Your task to perform on an android device: delete a single message in the gmail app Image 0: 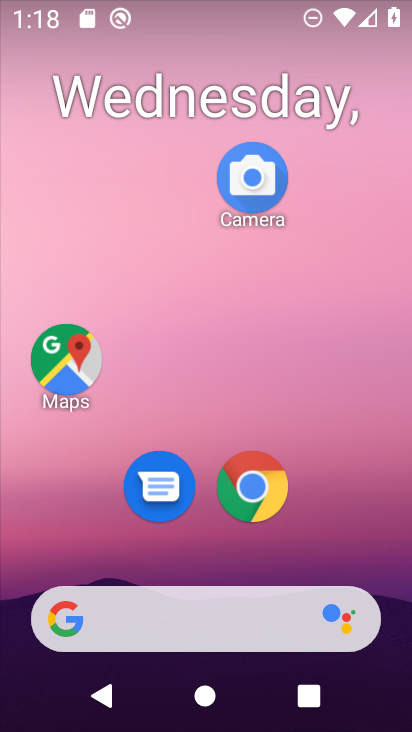
Step 0: drag from (340, 670) to (246, 181)
Your task to perform on an android device: delete a single message in the gmail app Image 1: 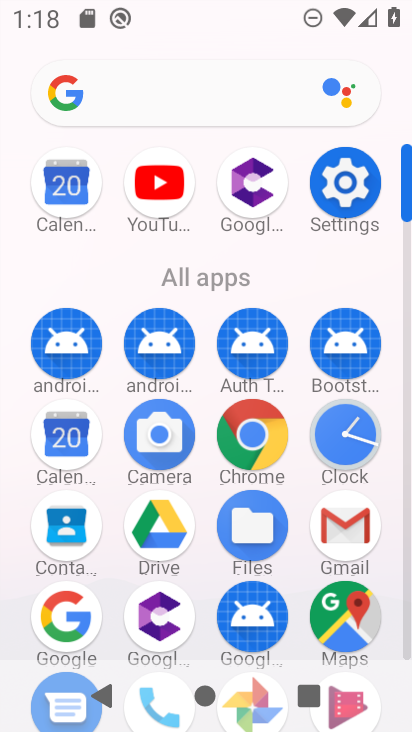
Step 1: click (347, 516)
Your task to perform on an android device: delete a single message in the gmail app Image 2: 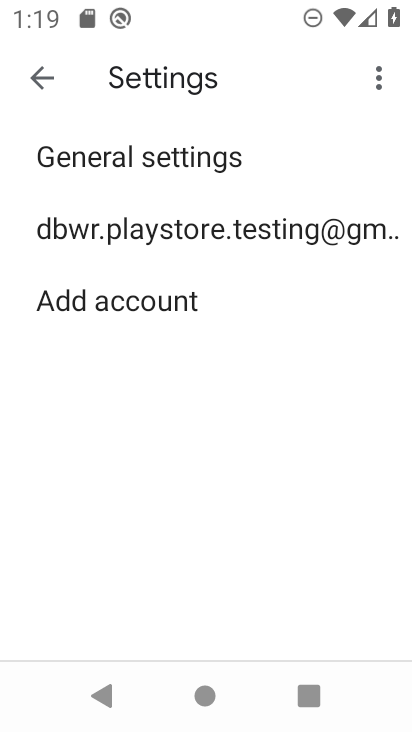
Step 2: click (35, 87)
Your task to perform on an android device: delete a single message in the gmail app Image 3: 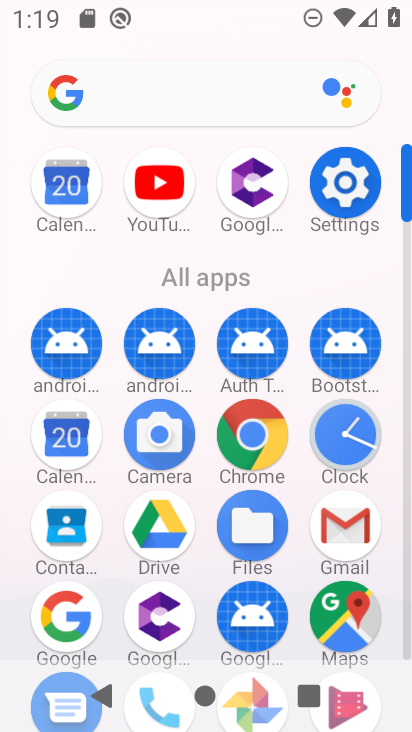
Step 3: click (342, 520)
Your task to perform on an android device: delete a single message in the gmail app Image 4: 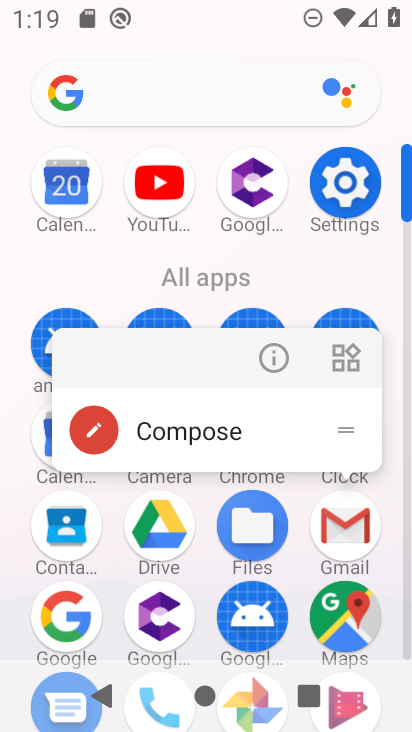
Step 4: click (337, 539)
Your task to perform on an android device: delete a single message in the gmail app Image 5: 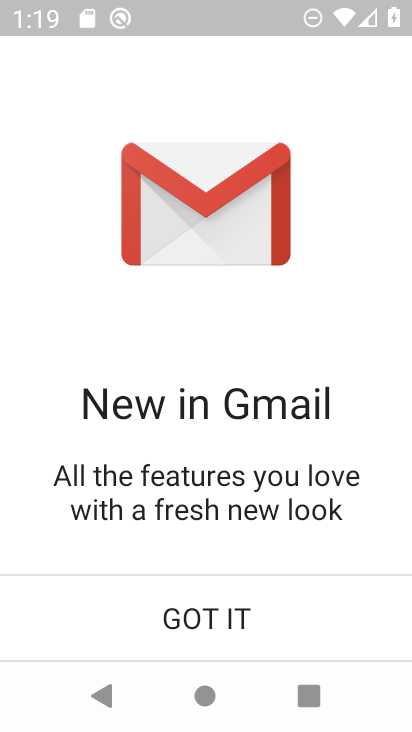
Step 5: click (182, 620)
Your task to perform on an android device: delete a single message in the gmail app Image 6: 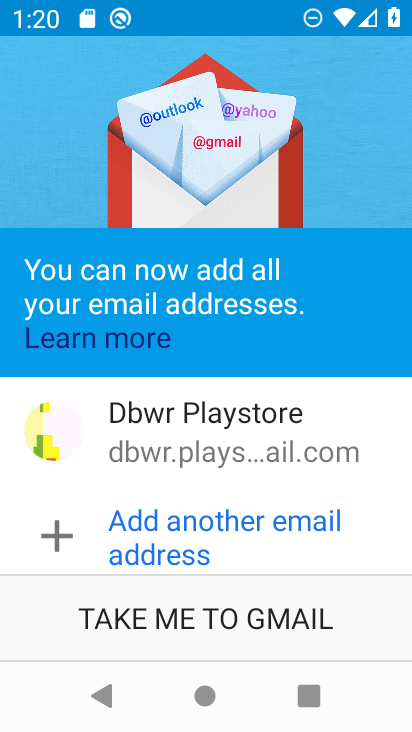
Step 6: click (208, 618)
Your task to perform on an android device: delete a single message in the gmail app Image 7: 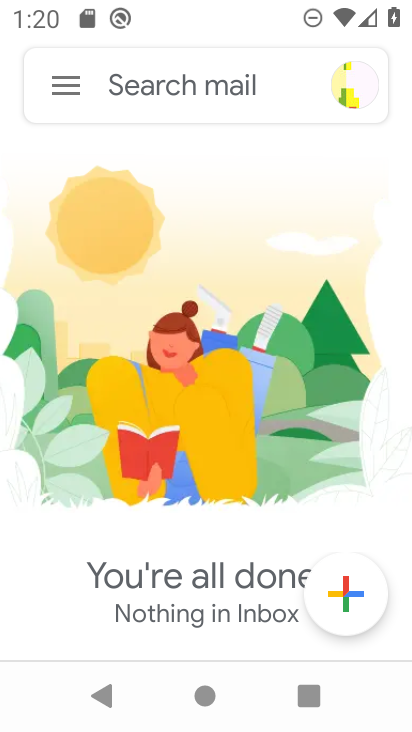
Step 7: click (48, 66)
Your task to perform on an android device: delete a single message in the gmail app Image 8: 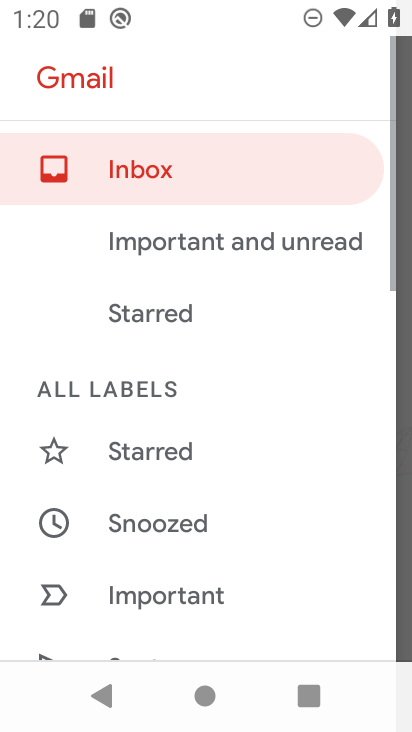
Step 8: drag from (202, 446) to (234, 193)
Your task to perform on an android device: delete a single message in the gmail app Image 9: 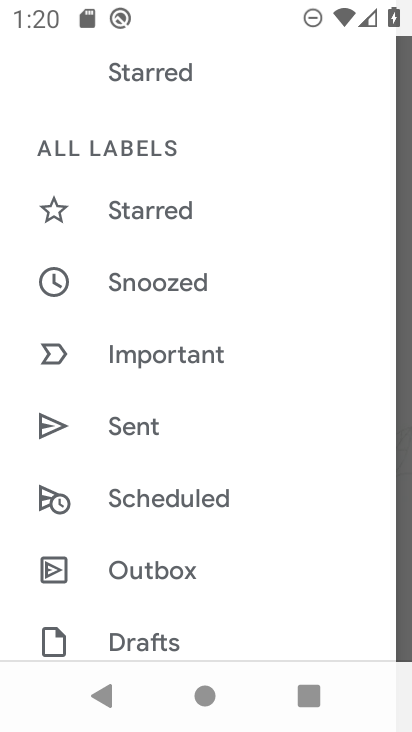
Step 9: drag from (146, 572) to (193, 304)
Your task to perform on an android device: delete a single message in the gmail app Image 10: 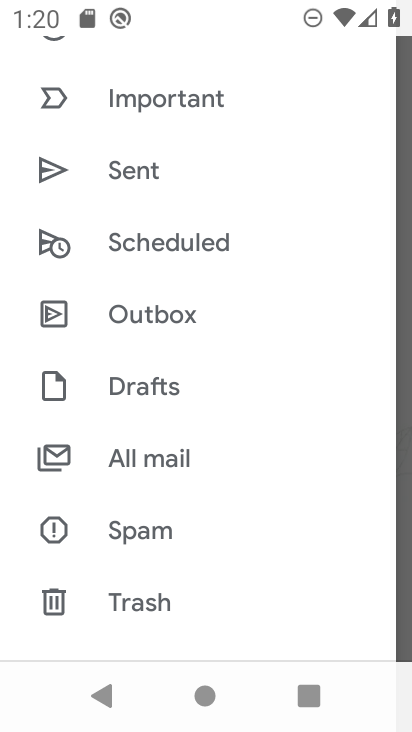
Step 10: click (170, 466)
Your task to perform on an android device: delete a single message in the gmail app Image 11: 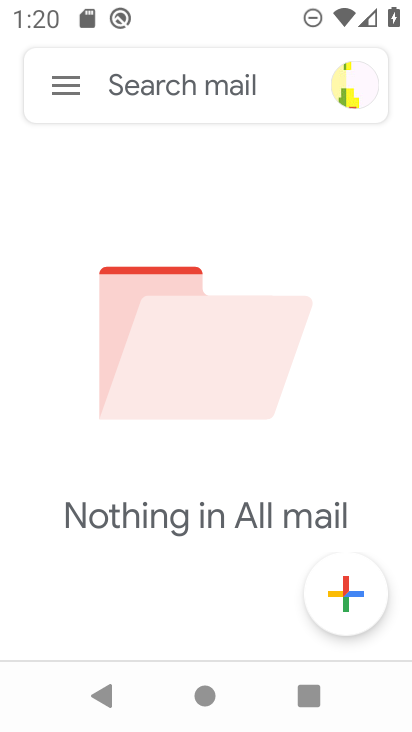
Step 11: task complete